Your task to perform on an android device: toggle airplane mode Image 0: 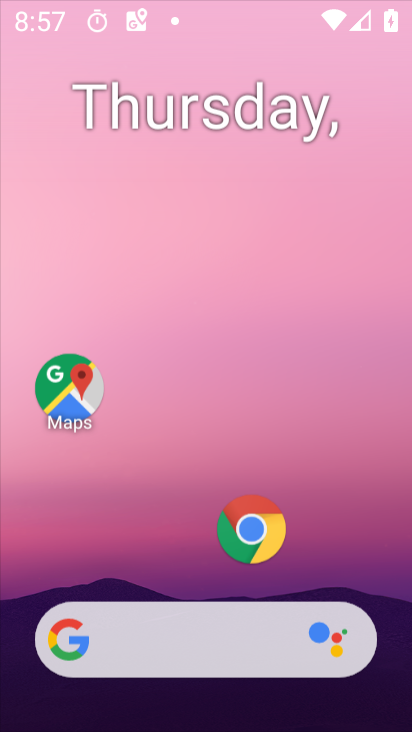
Step 0: press home button
Your task to perform on an android device: toggle airplane mode Image 1: 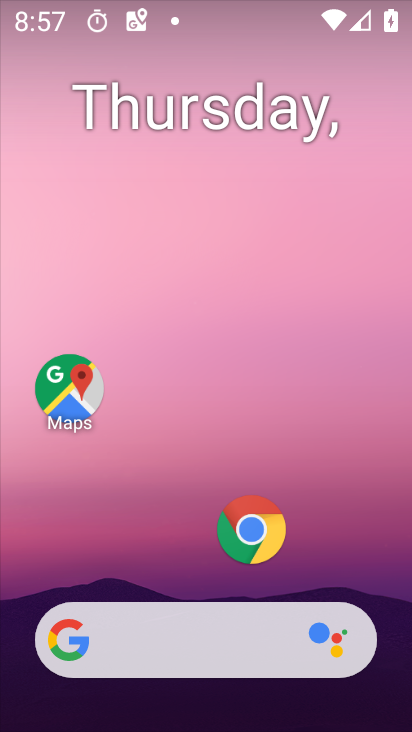
Step 1: drag from (250, 7) to (249, 538)
Your task to perform on an android device: toggle airplane mode Image 2: 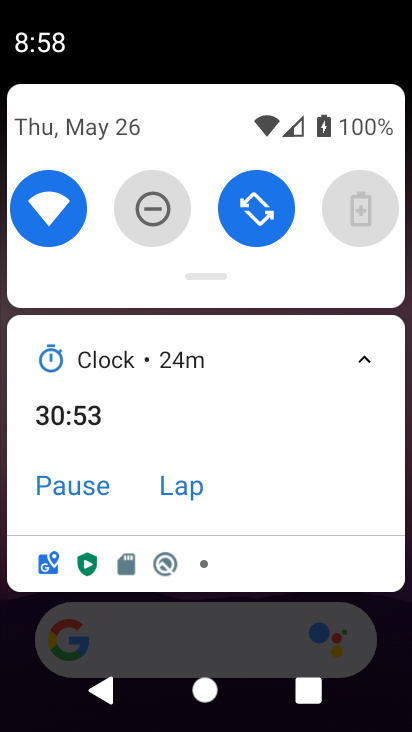
Step 2: drag from (215, 278) to (222, 693)
Your task to perform on an android device: toggle airplane mode Image 3: 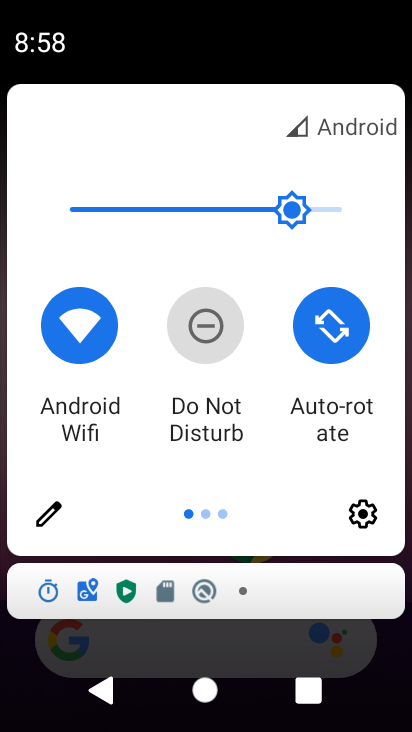
Step 3: drag from (119, 359) to (59, 353)
Your task to perform on an android device: toggle airplane mode Image 4: 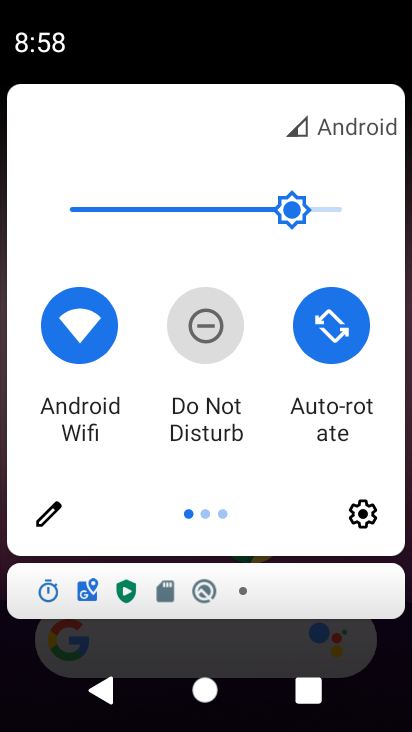
Step 4: drag from (367, 375) to (7, 365)
Your task to perform on an android device: toggle airplane mode Image 5: 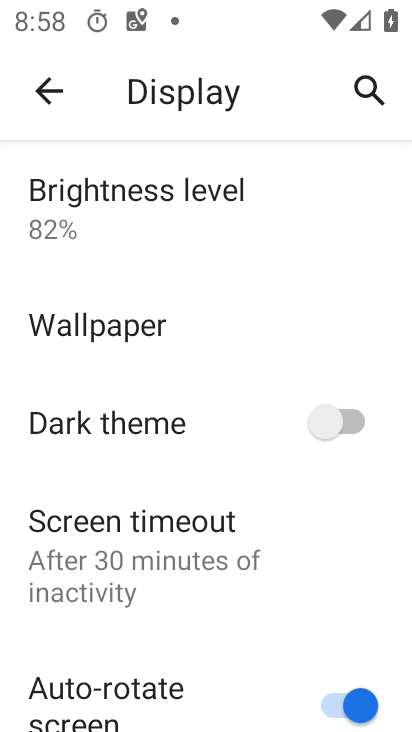
Step 5: drag from (254, 9) to (239, 569)
Your task to perform on an android device: toggle airplane mode Image 6: 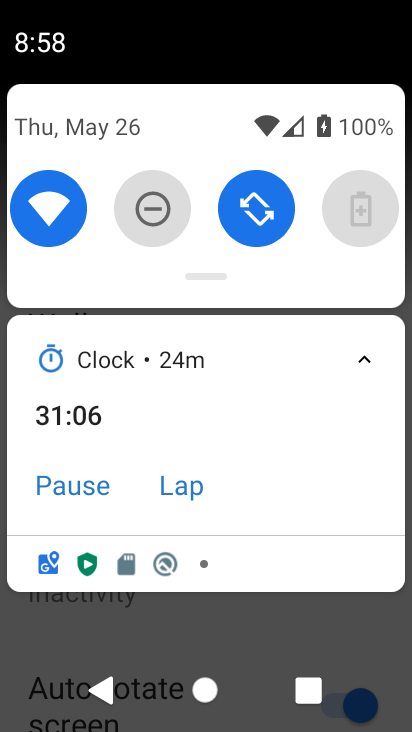
Step 6: drag from (227, 291) to (207, 706)
Your task to perform on an android device: toggle airplane mode Image 7: 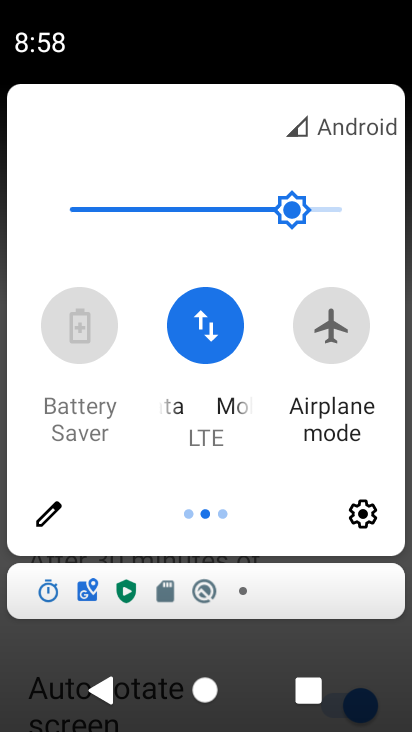
Step 7: drag from (369, 363) to (4, 372)
Your task to perform on an android device: toggle airplane mode Image 8: 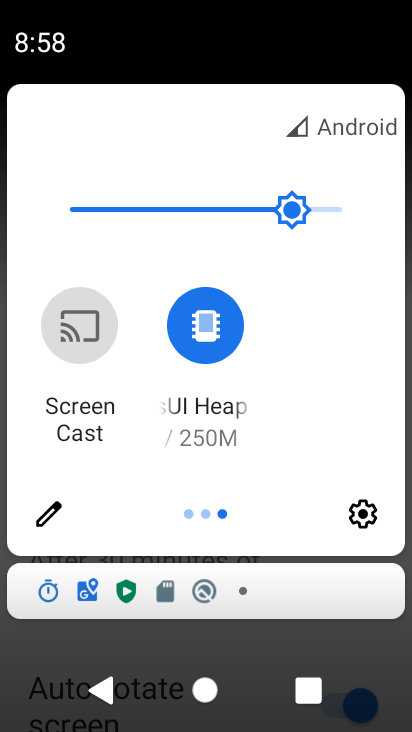
Step 8: drag from (35, 368) to (388, 381)
Your task to perform on an android device: toggle airplane mode Image 9: 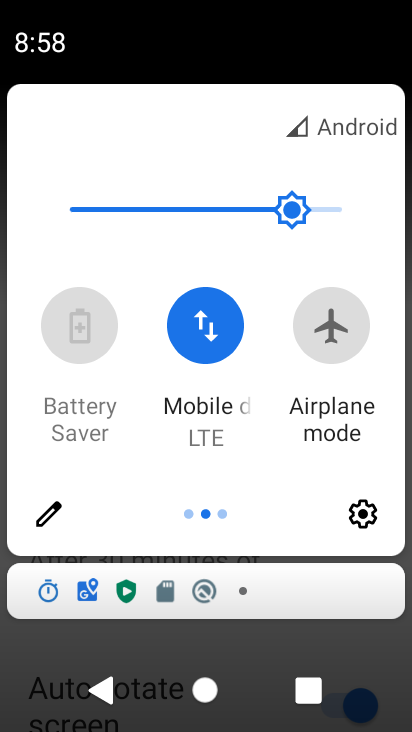
Step 9: click (334, 330)
Your task to perform on an android device: toggle airplane mode Image 10: 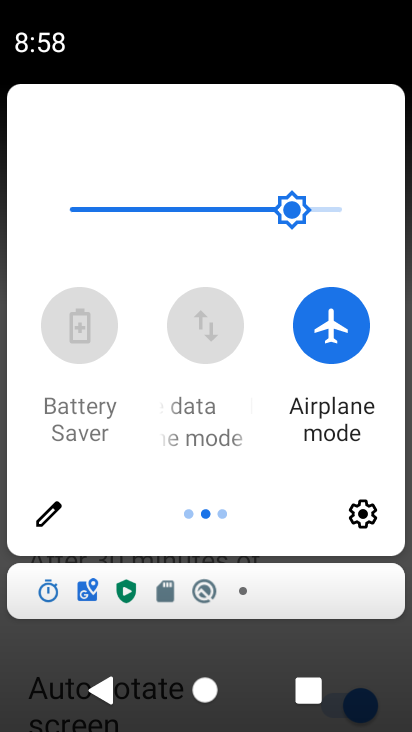
Step 10: task complete